Your task to perform on an android device: Clear the shopping cart on newegg. Search for "duracell triple a" on newegg, select the first entry, and add it to the cart. Image 0: 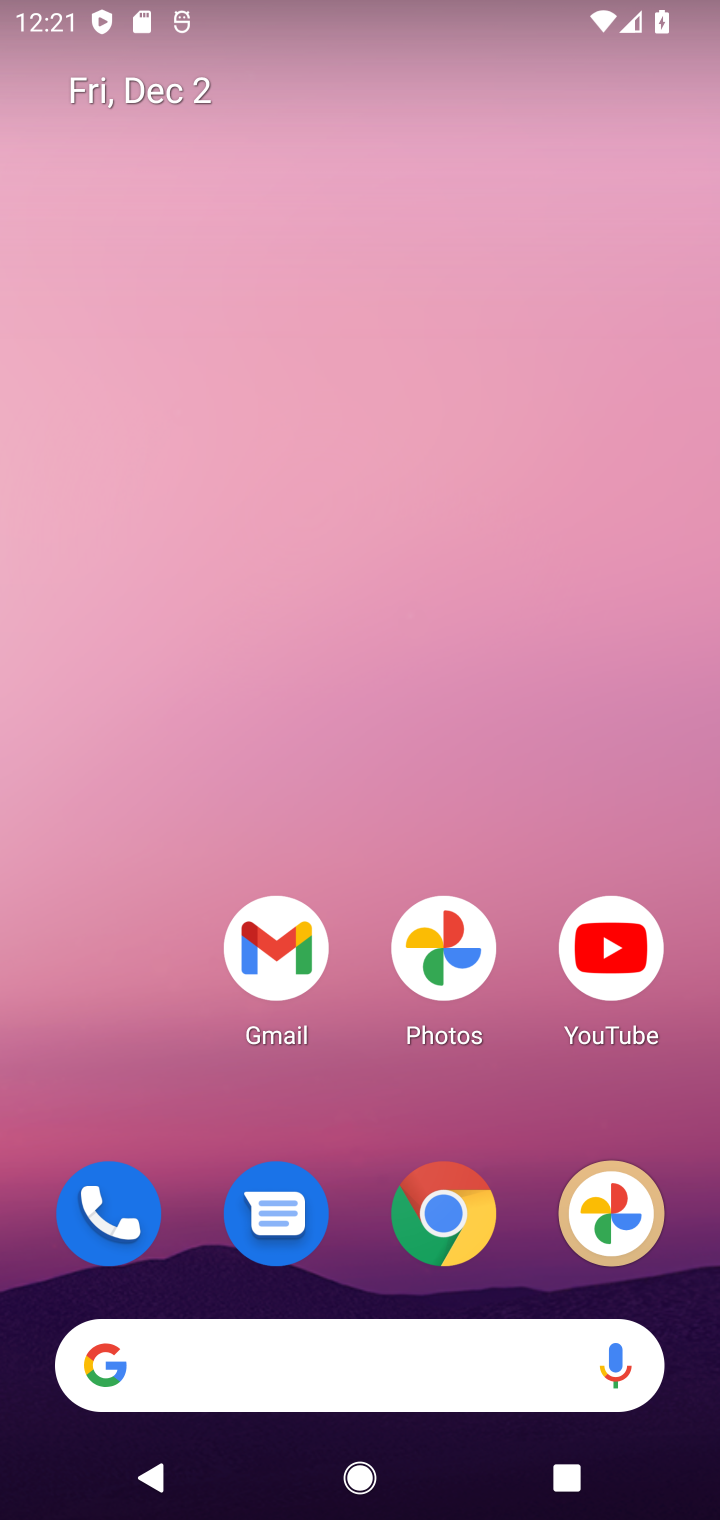
Step 0: drag from (405, 1321) to (576, 420)
Your task to perform on an android device: Clear the shopping cart on newegg. Search for "duracell triple a" on newegg, select the first entry, and add it to the cart. Image 1: 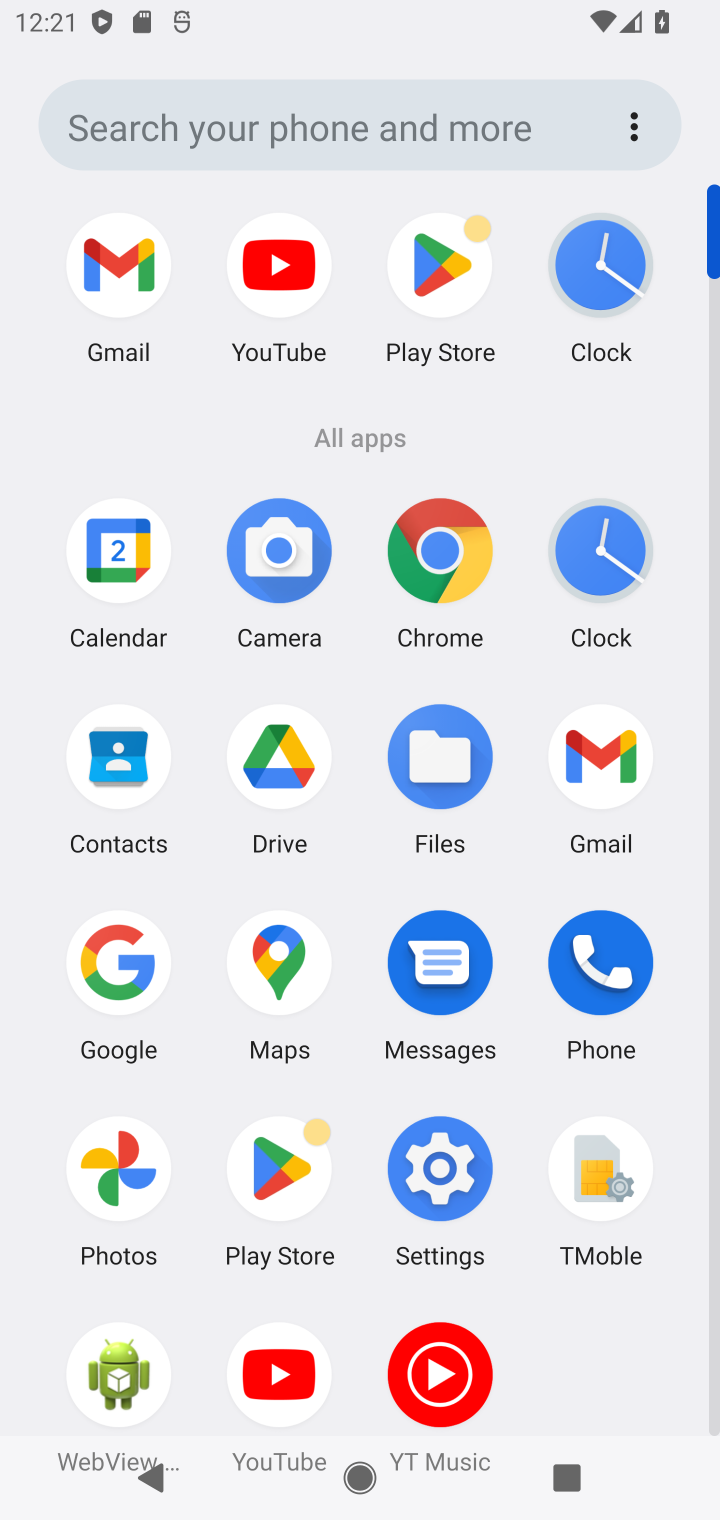
Step 1: click (78, 922)
Your task to perform on an android device: Clear the shopping cart on newegg. Search for "duracell triple a" on newegg, select the first entry, and add it to the cart. Image 2: 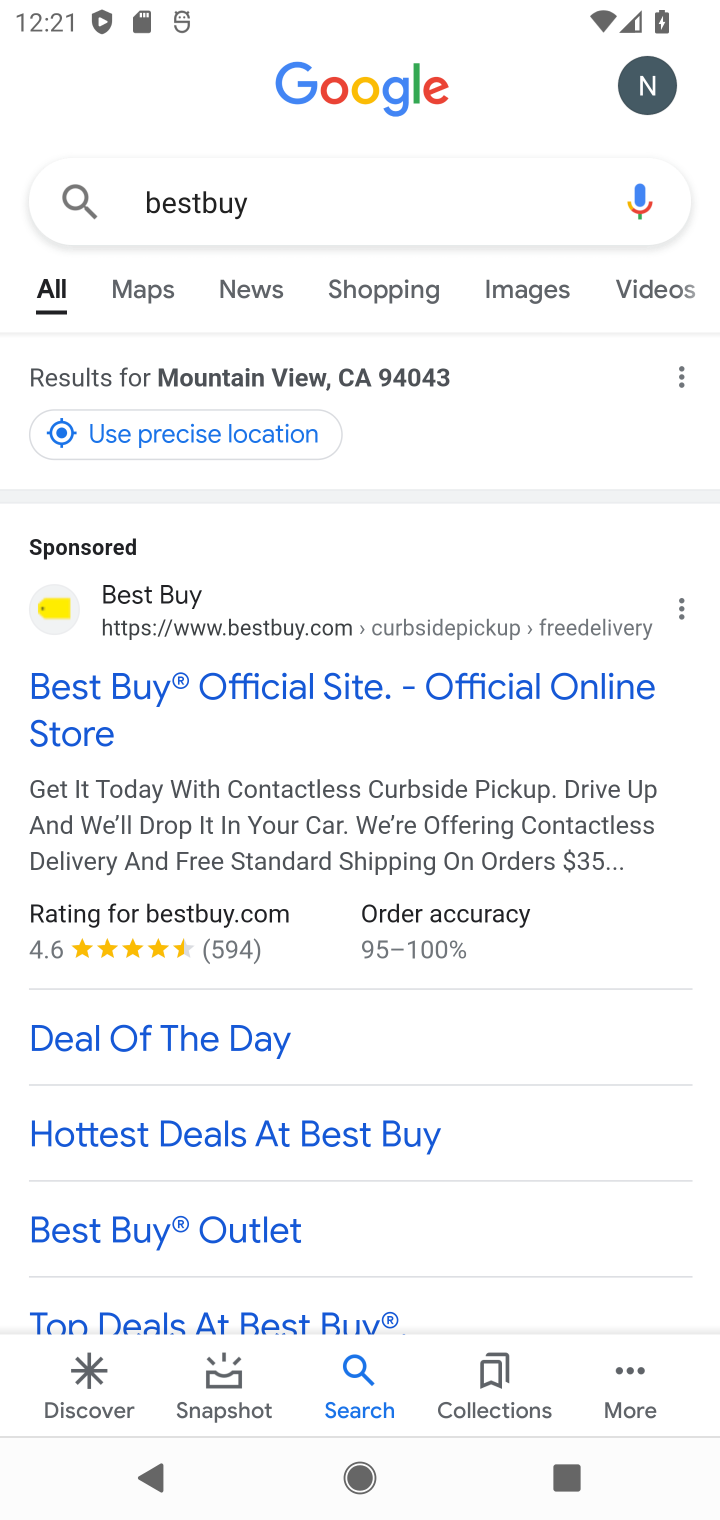
Step 2: click (247, 183)
Your task to perform on an android device: Clear the shopping cart on newegg. Search for "duracell triple a" on newegg, select the first entry, and add it to the cart. Image 3: 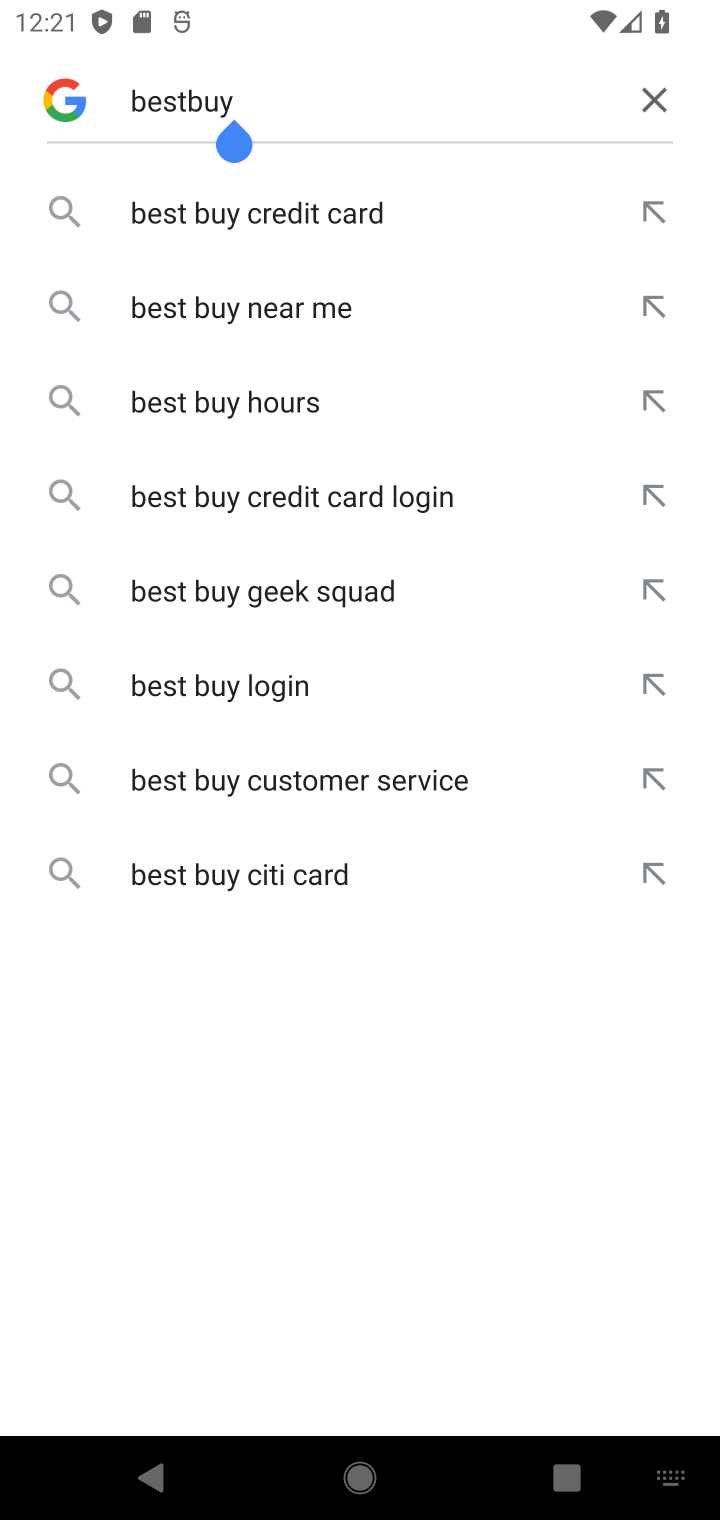
Step 3: click (668, 95)
Your task to perform on an android device: Clear the shopping cart on newegg. Search for "duracell triple a" on newegg, select the first entry, and add it to the cart. Image 4: 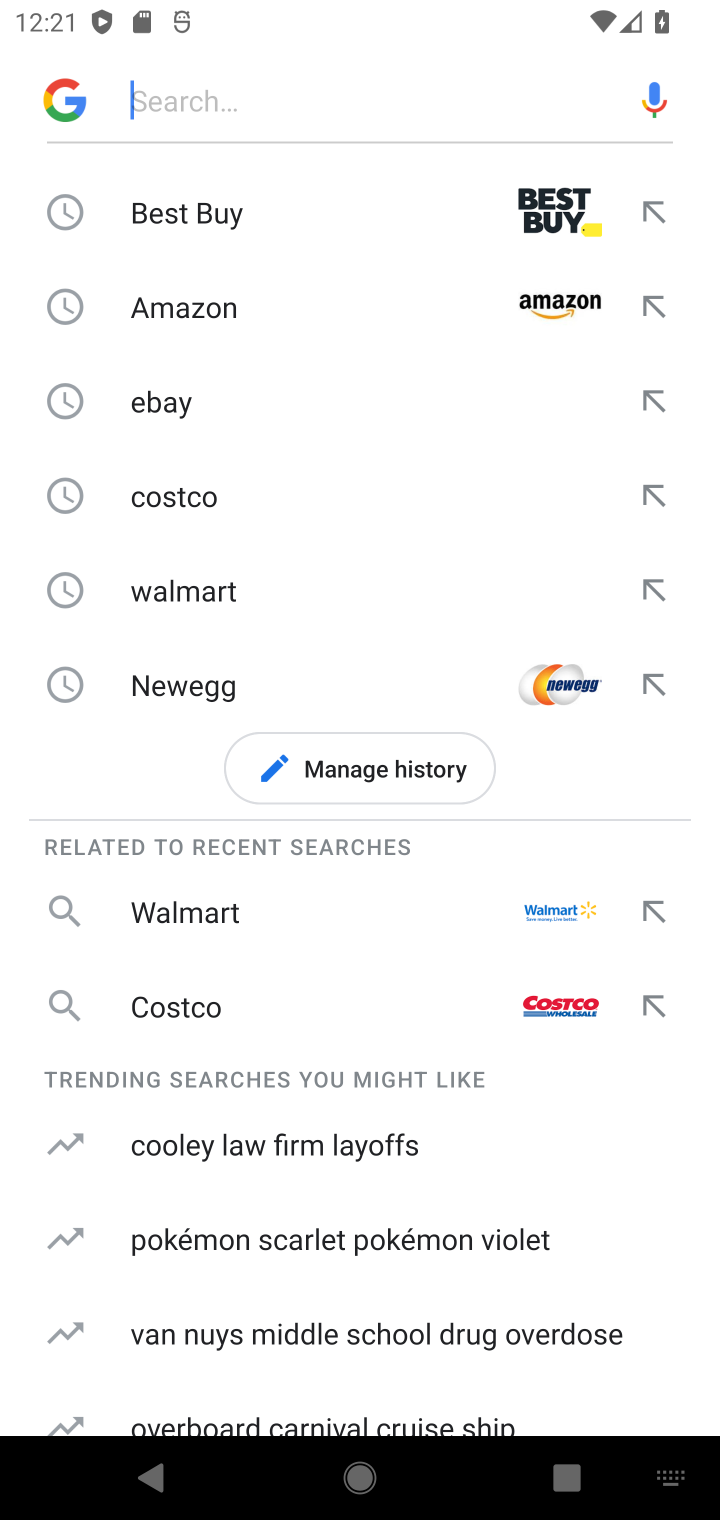
Step 4: click (195, 682)
Your task to perform on an android device: Clear the shopping cart on newegg. Search for "duracell triple a" on newegg, select the first entry, and add it to the cart. Image 5: 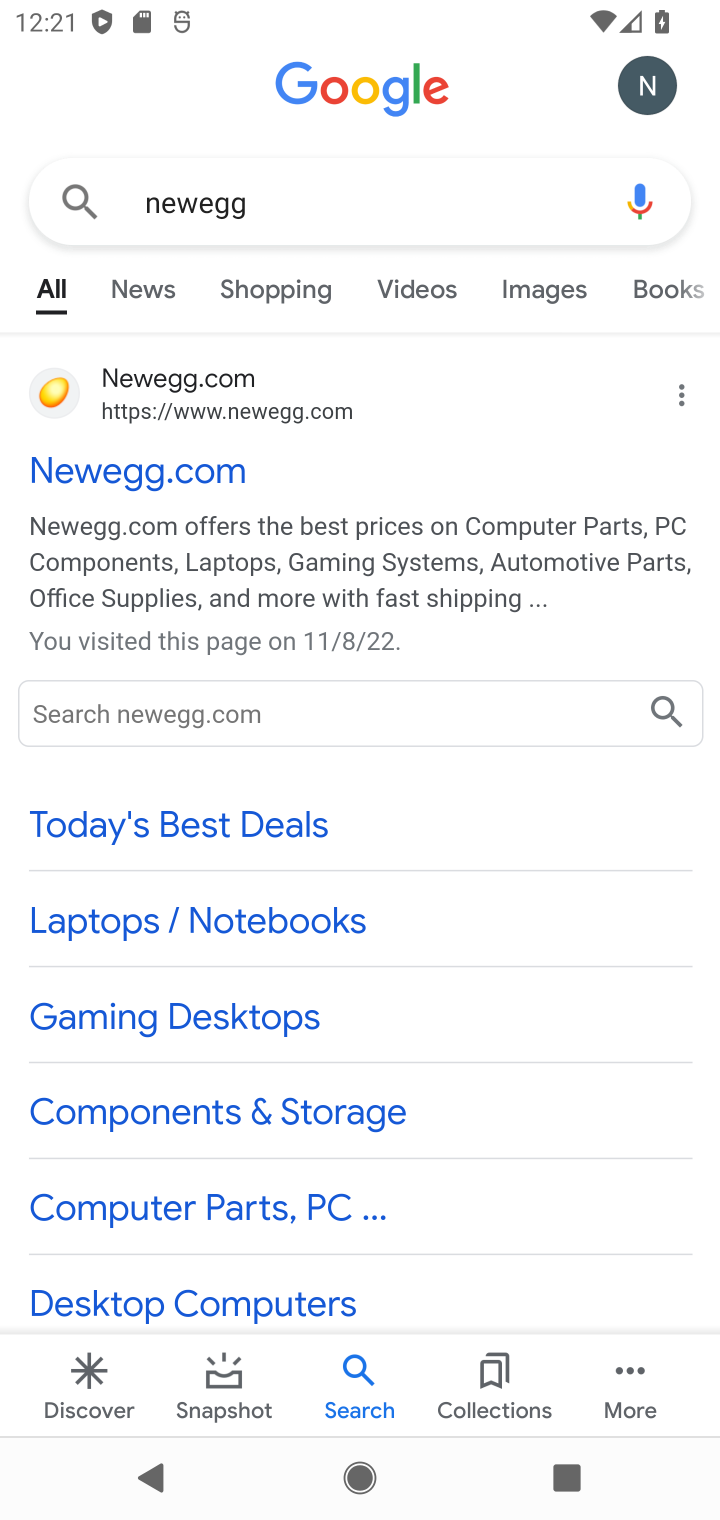
Step 5: click (156, 473)
Your task to perform on an android device: Clear the shopping cart on newegg. Search for "duracell triple a" on newegg, select the first entry, and add it to the cart. Image 6: 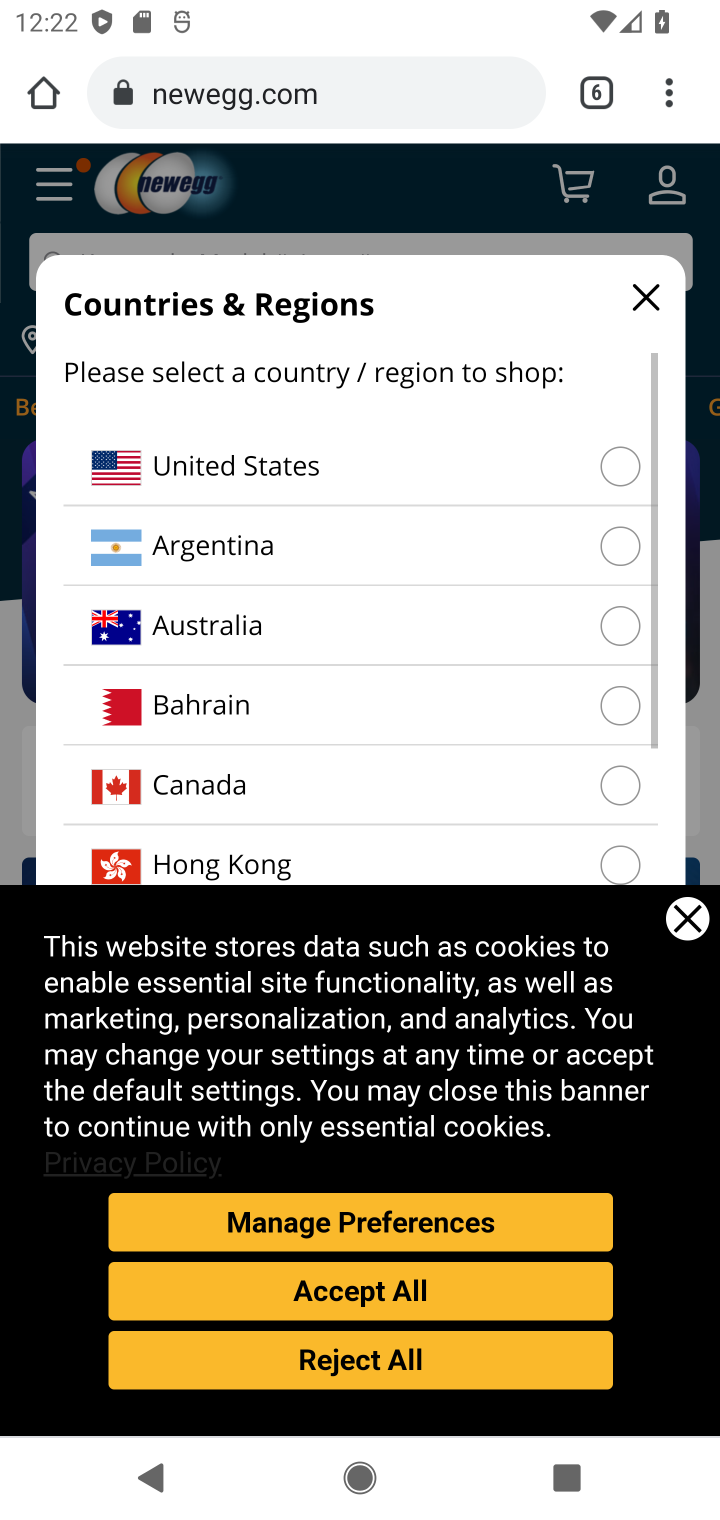
Step 6: click (202, 800)
Your task to perform on an android device: Clear the shopping cart on newegg. Search for "duracell triple a" on newegg, select the first entry, and add it to the cart. Image 7: 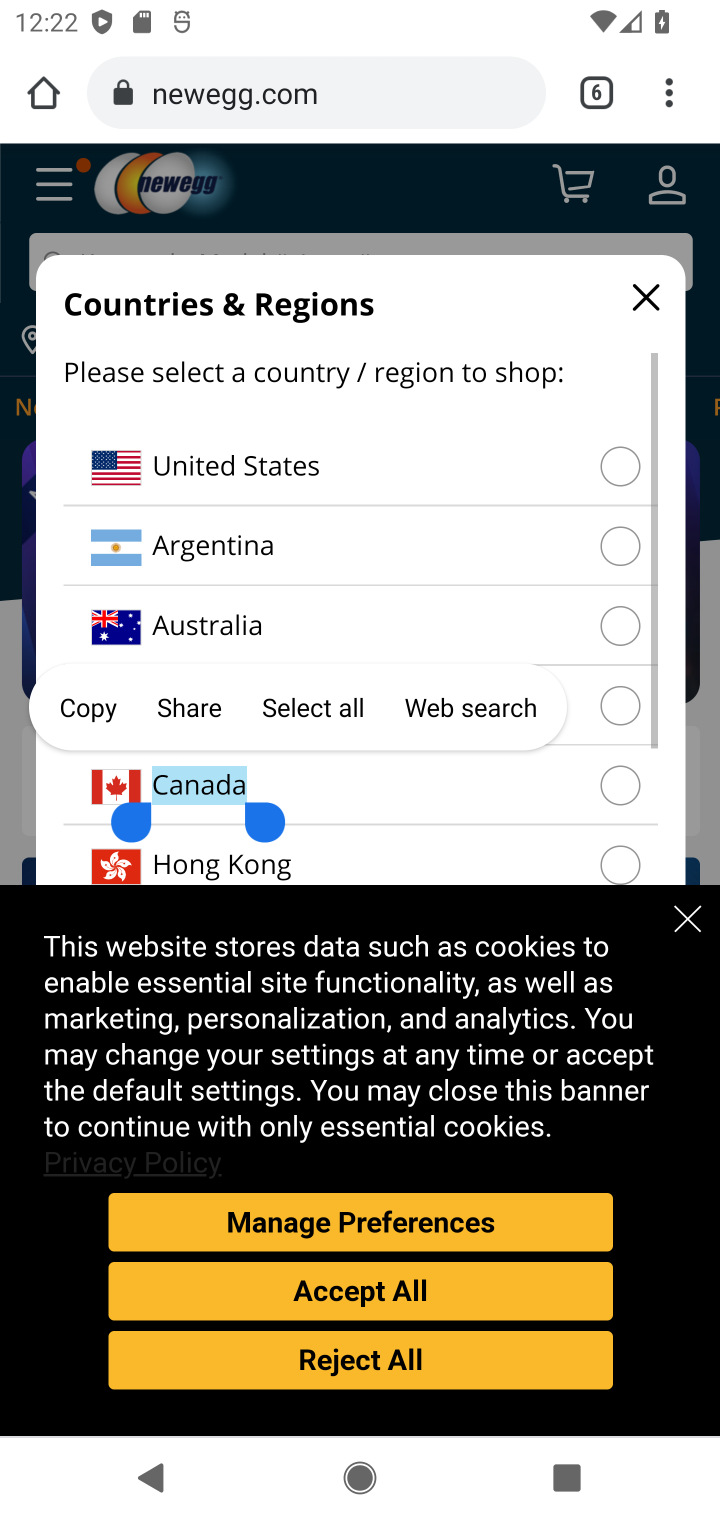
Step 7: click (633, 794)
Your task to perform on an android device: Clear the shopping cart on newegg. Search for "duracell triple a" on newegg, select the first entry, and add it to the cart. Image 8: 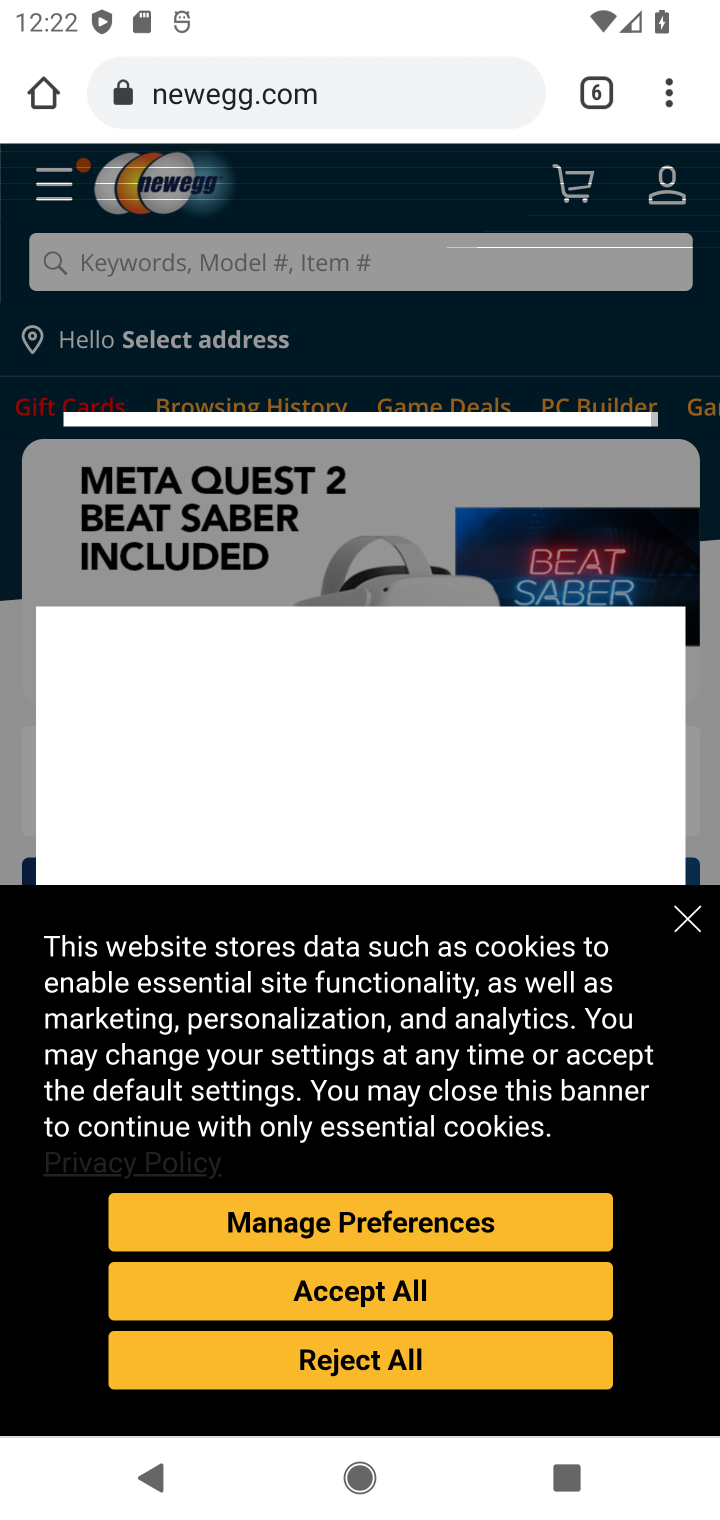
Step 8: click (643, 297)
Your task to perform on an android device: Clear the shopping cart on newegg. Search for "duracell triple a" on newegg, select the first entry, and add it to the cart. Image 9: 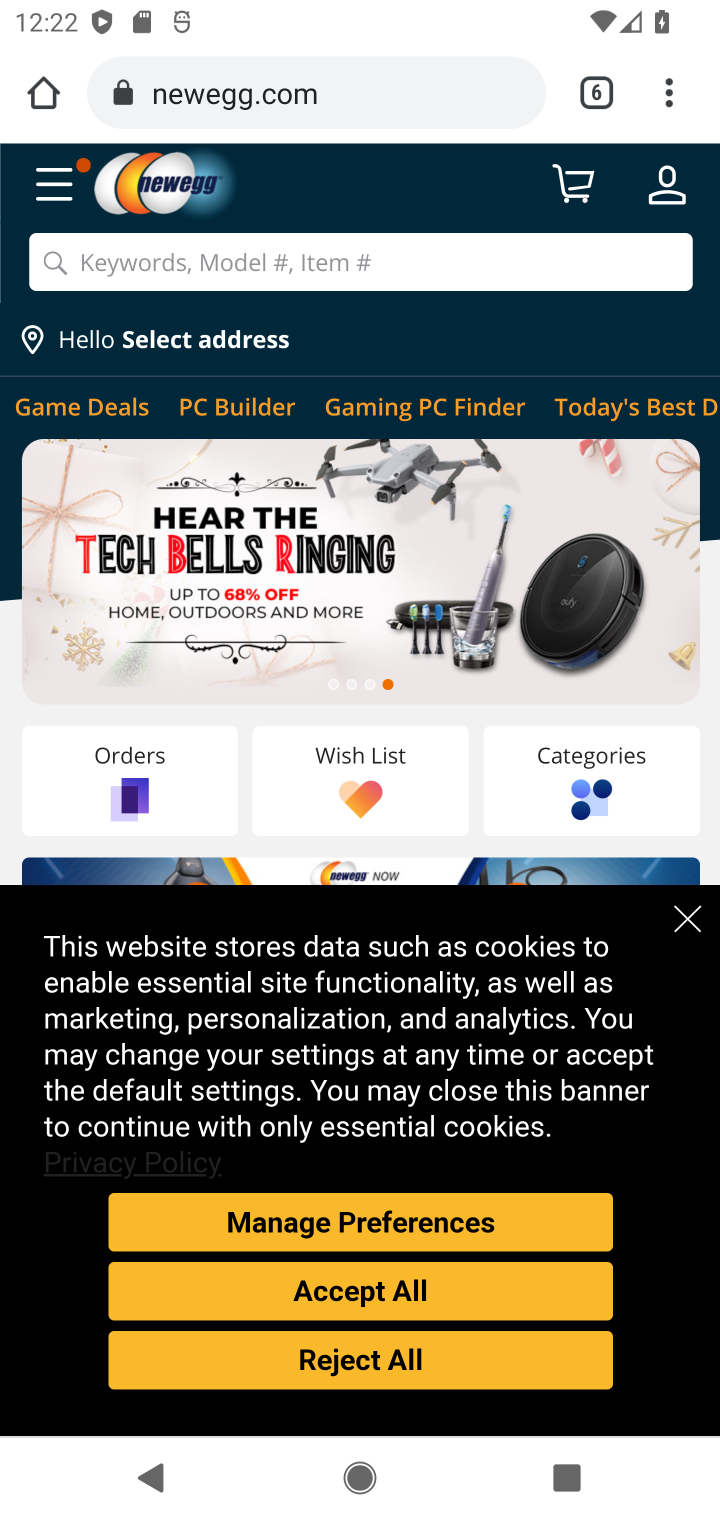
Step 9: click (436, 249)
Your task to perform on an android device: Clear the shopping cart on newegg. Search for "duracell triple a" on newegg, select the first entry, and add it to the cart. Image 10: 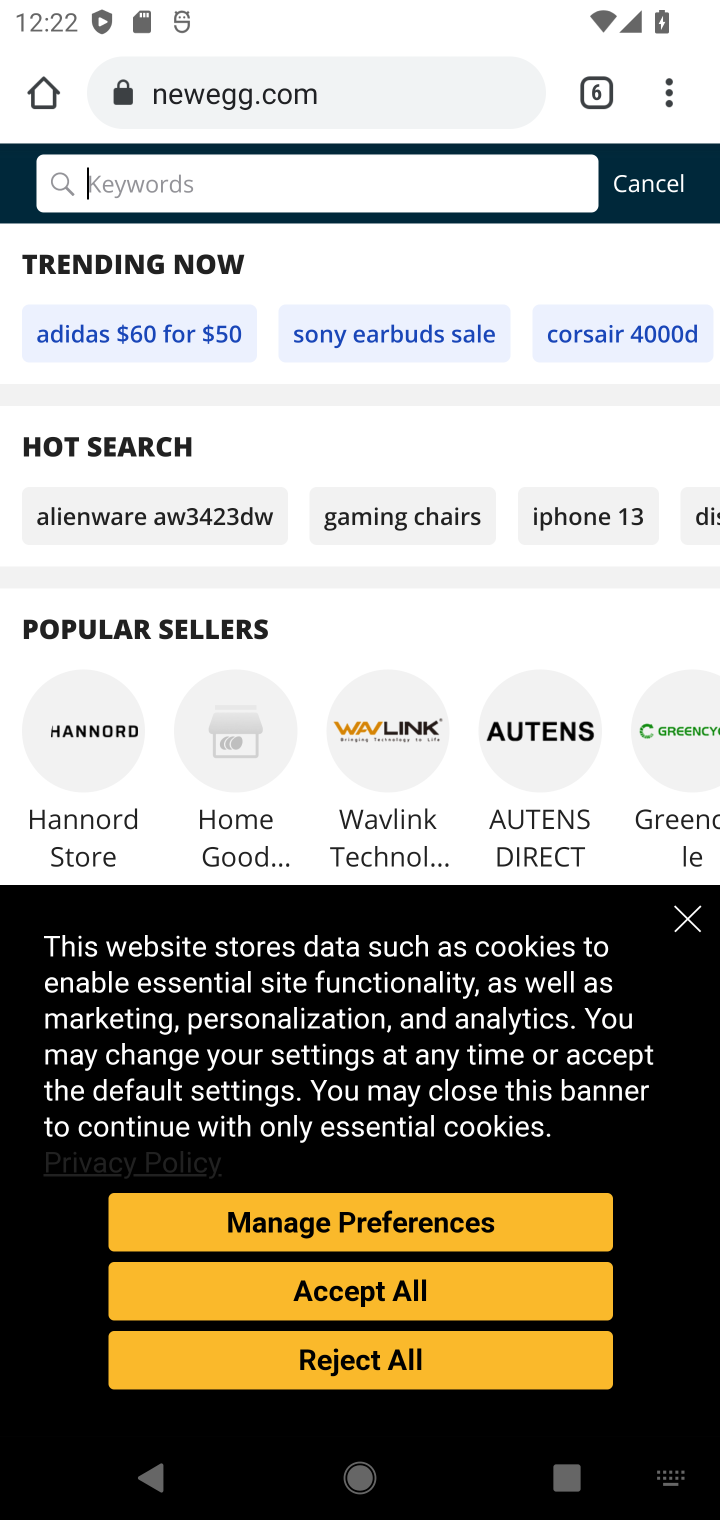
Step 10: type "duracell triple a"
Your task to perform on an android device: Clear the shopping cart on newegg. Search for "duracell triple a" on newegg, select the first entry, and add it to the cart. Image 11: 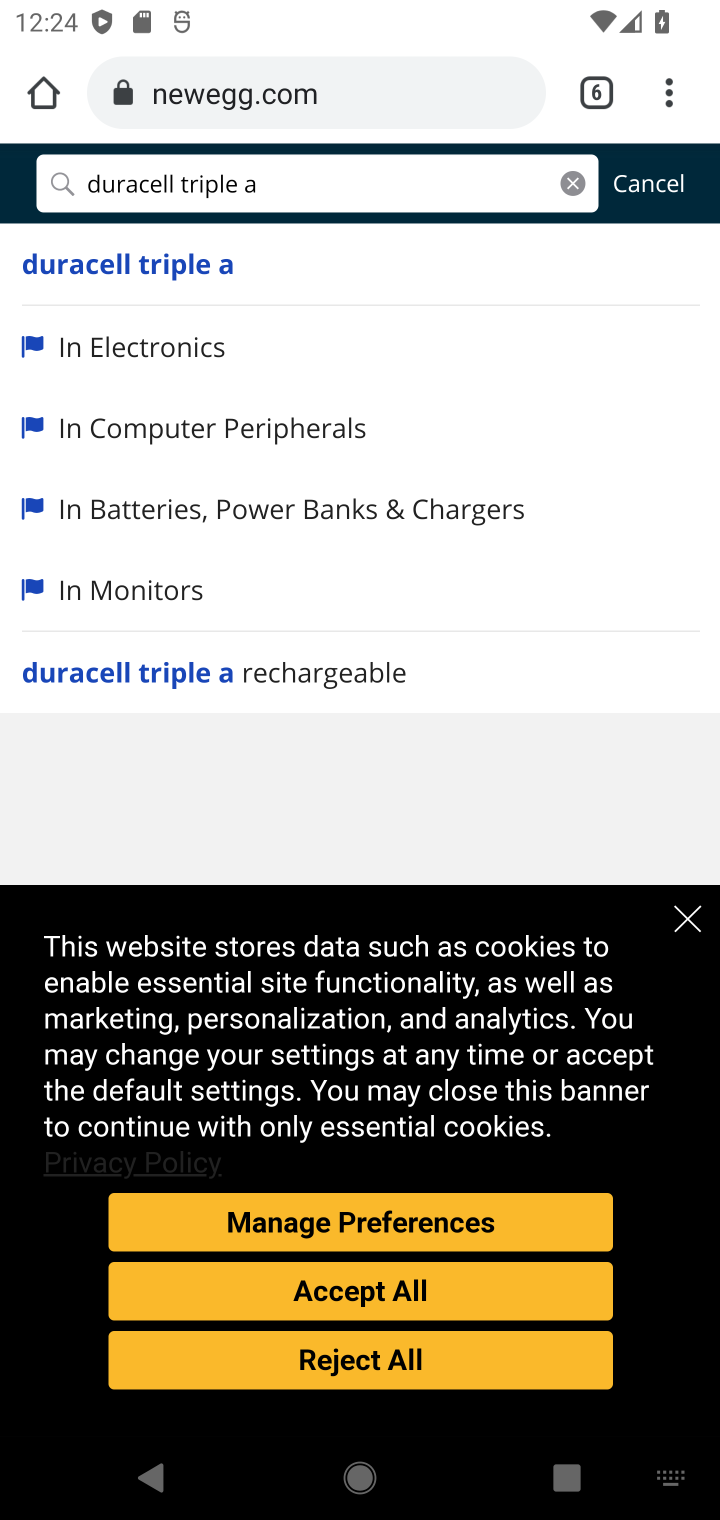
Step 11: click (182, 337)
Your task to perform on an android device: Clear the shopping cart on newegg. Search for "duracell triple a" on newegg, select the first entry, and add it to the cart. Image 12: 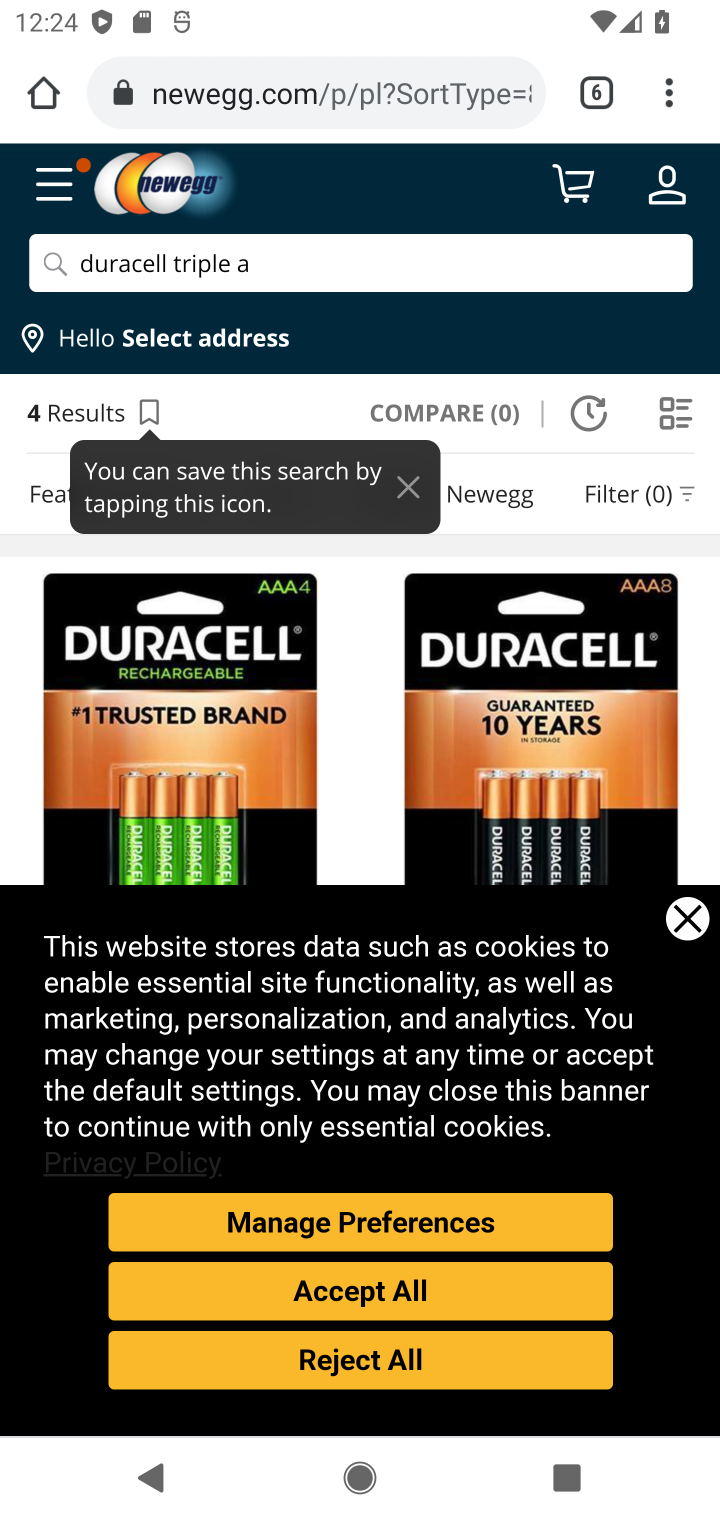
Step 12: click (173, 820)
Your task to perform on an android device: Clear the shopping cart on newegg. Search for "duracell triple a" on newegg, select the first entry, and add it to the cart. Image 13: 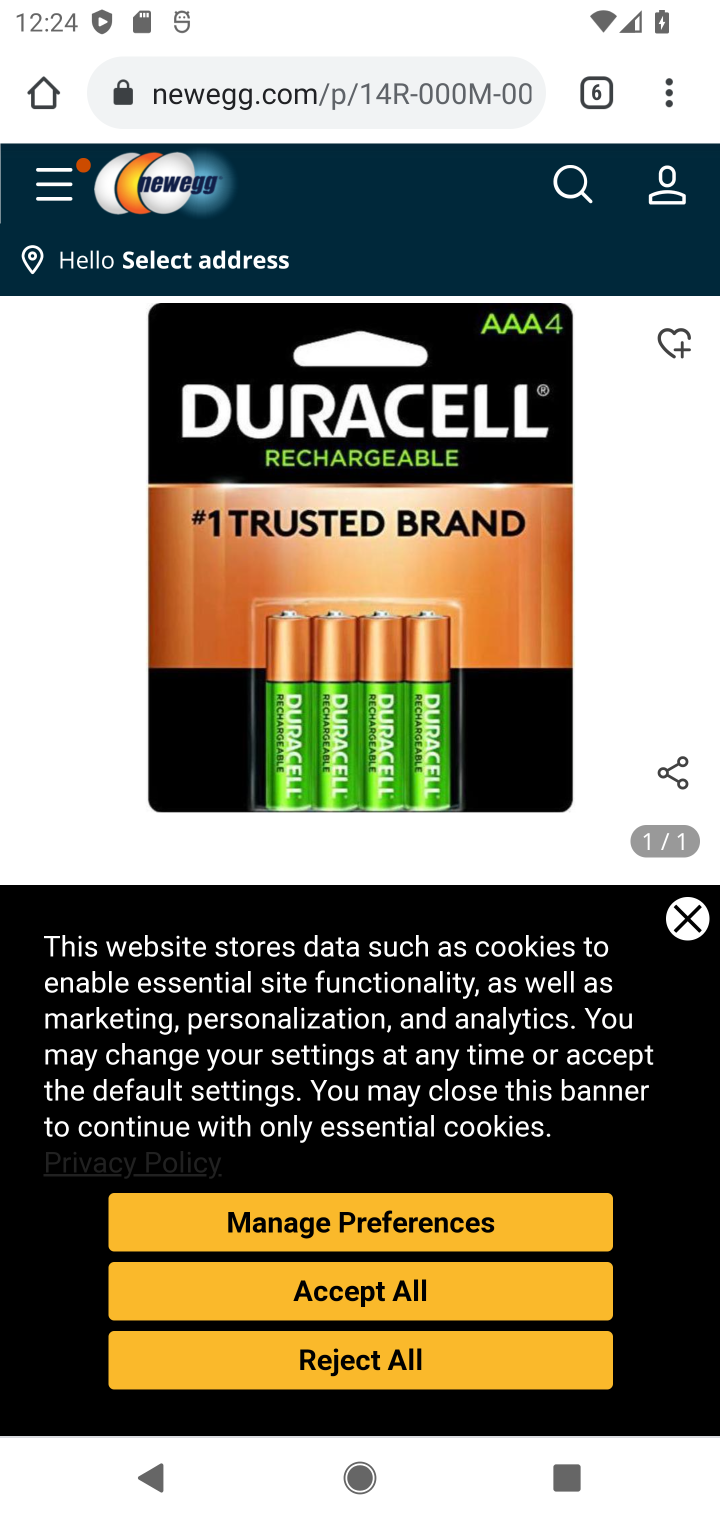
Step 13: click (705, 922)
Your task to perform on an android device: Clear the shopping cart on newegg. Search for "duracell triple a" on newegg, select the first entry, and add it to the cart. Image 14: 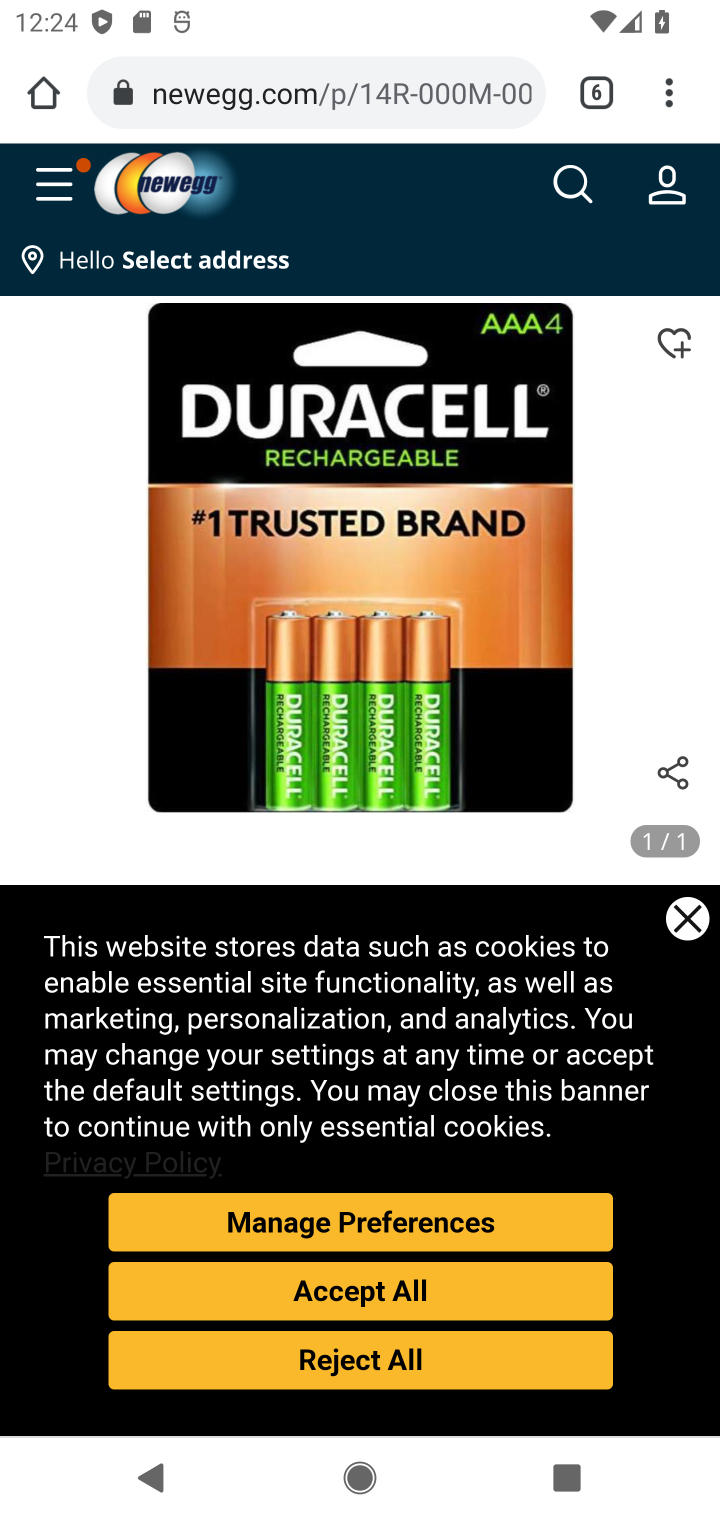
Step 14: click (674, 918)
Your task to perform on an android device: Clear the shopping cart on newegg. Search for "duracell triple a" on newegg, select the first entry, and add it to the cart. Image 15: 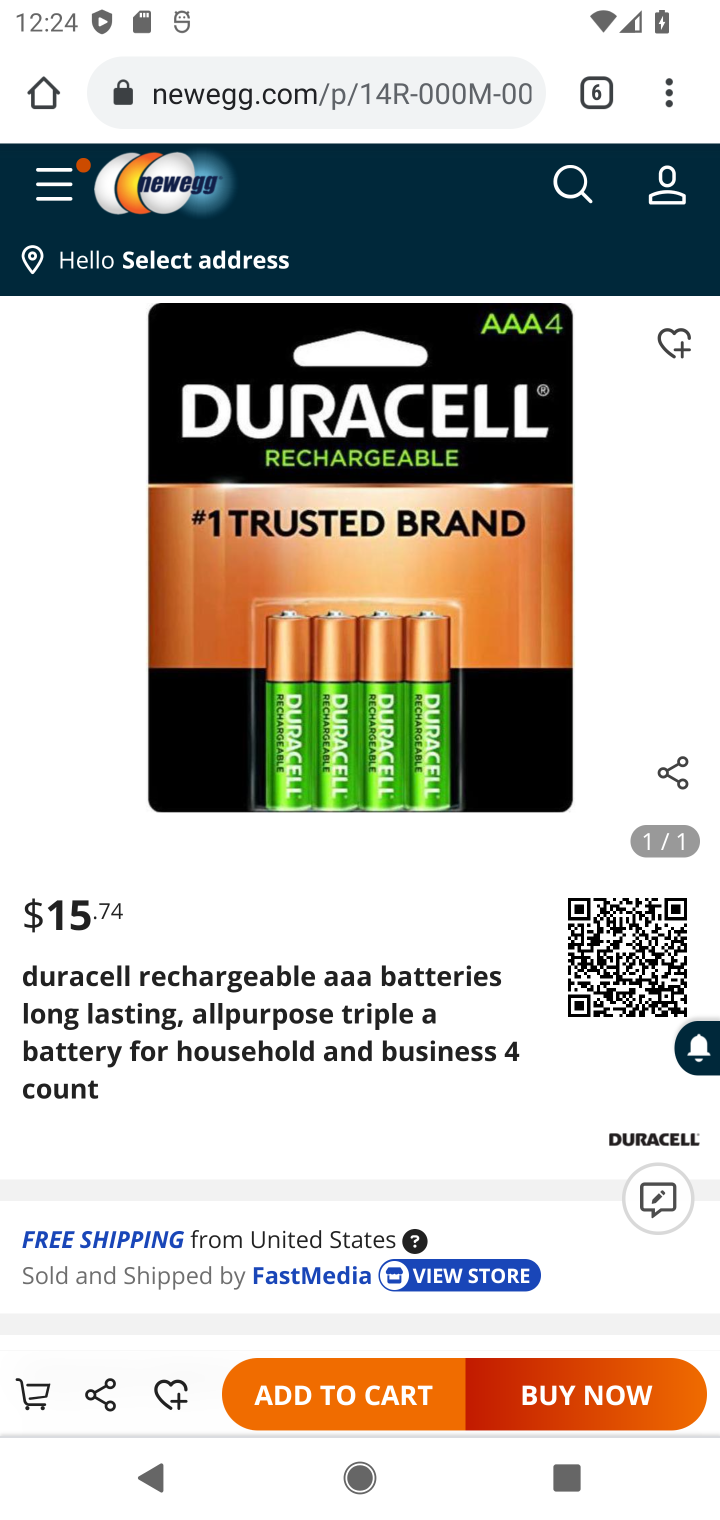
Step 15: click (316, 1395)
Your task to perform on an android device: Clear the shopping cart on newegg. Search for "duracell triple a" on newegg, select the first entry, and add it to the cart. Image 16: 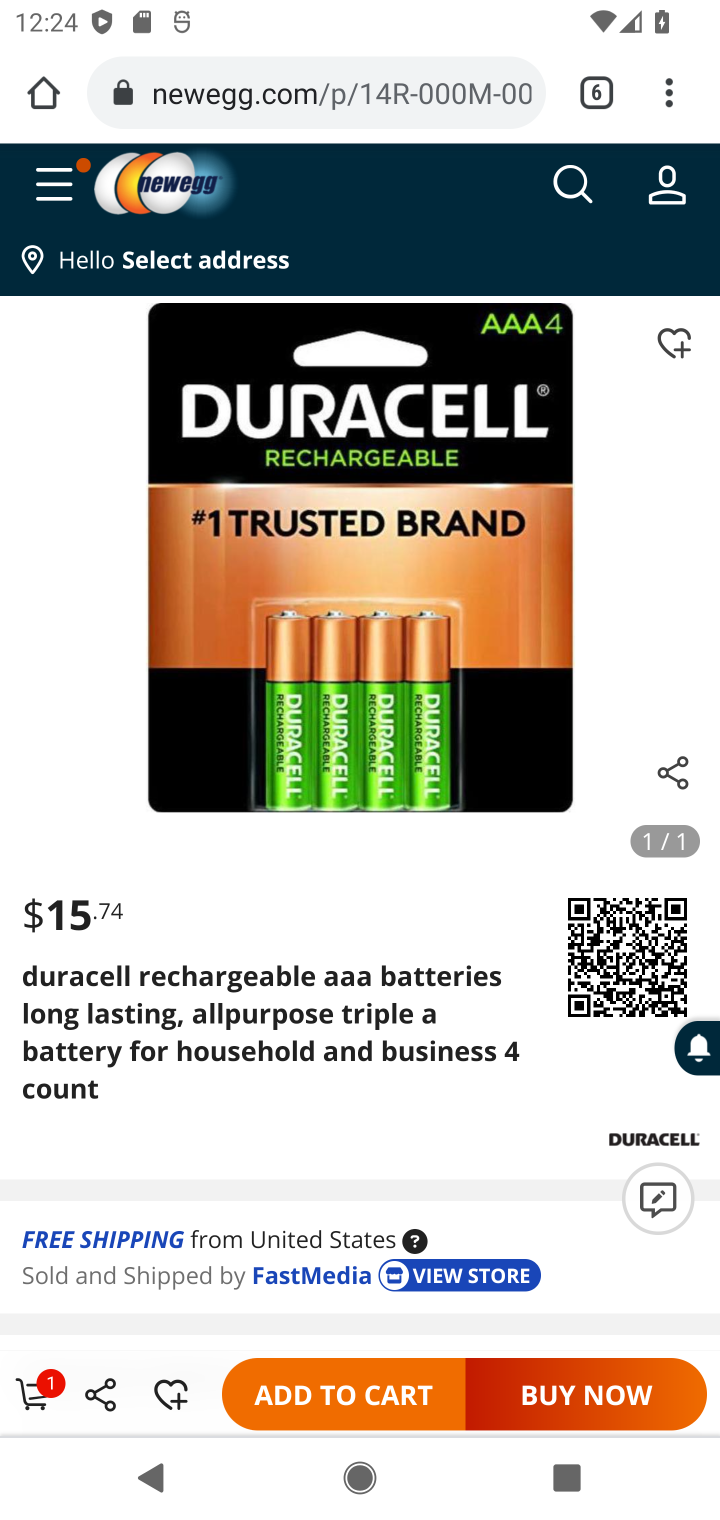
Step 16: click (33, 1393)
Your task to perform on an android device: Clear the shopping cart on newegg. Search for "duracell triple a" on newegg, select the first entry, and add it to the cart. Image 17: 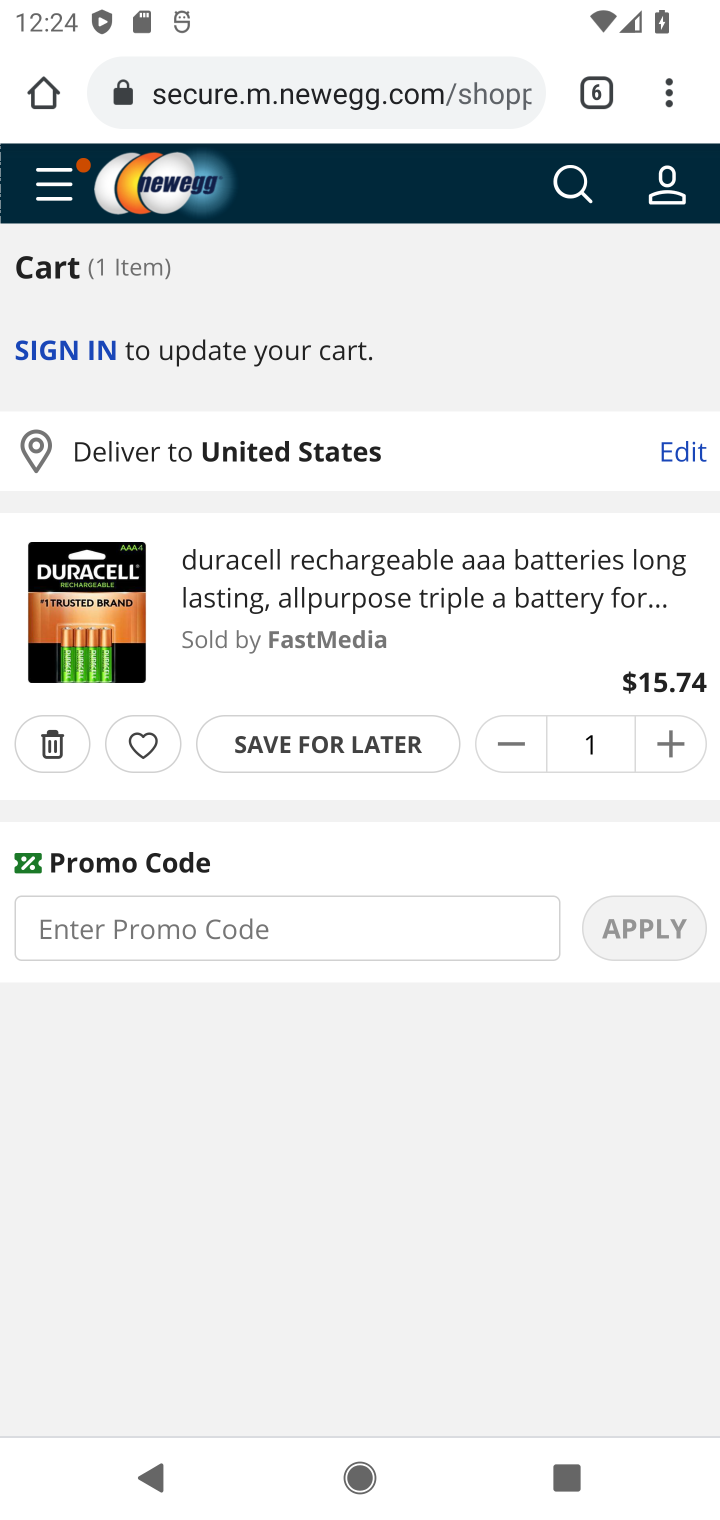
Step 17: task complete